Your task to perform on an android device: What's on my calendar tomorrow? Image 0: 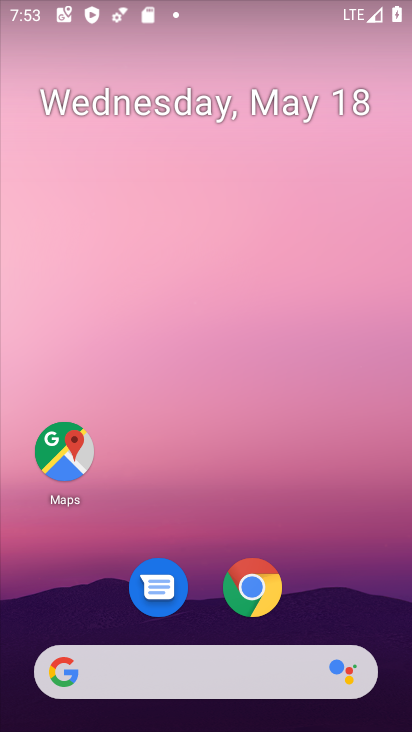
Step 0: click (232, 92)
Your task to perform on an android device: What's on my calendar tomorrow? Image 1: 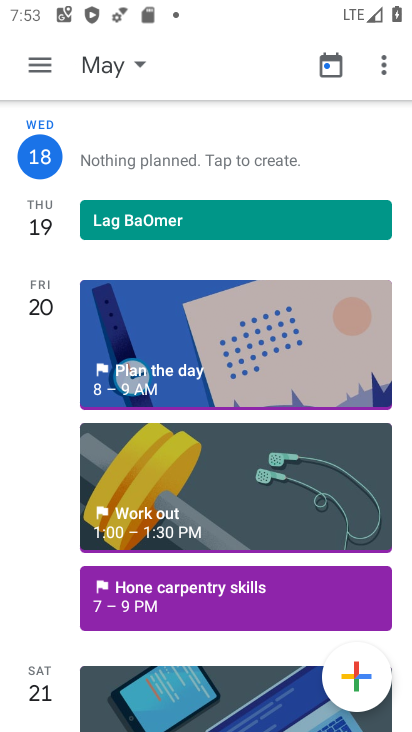
Step 1: click (147, 54)
Your task to perform on an android device: What's on my calendar tomorrow? Image 2: 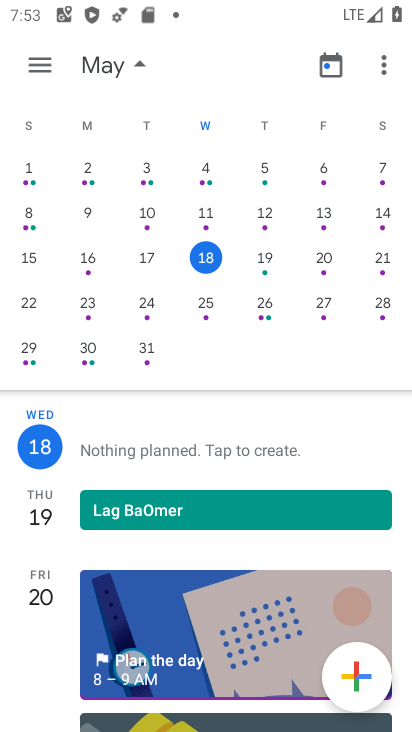
Step 2: click (270, 257)
Your task to perform on an android device: What's on my calendar tomorrow? Image 3: 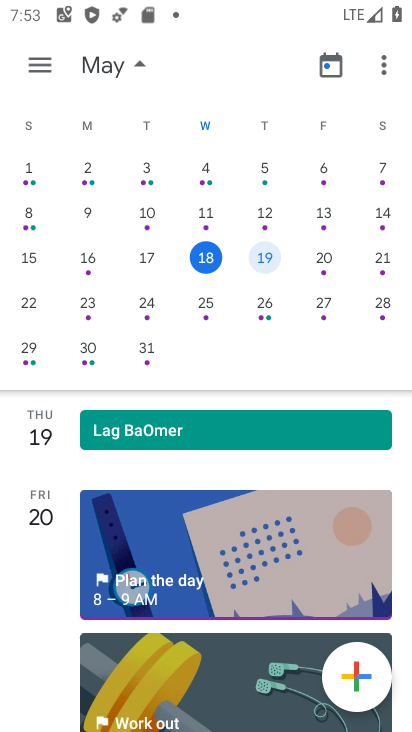
Step 3: task complete